Your task to perform on an android device: Go to eBay Image 0: 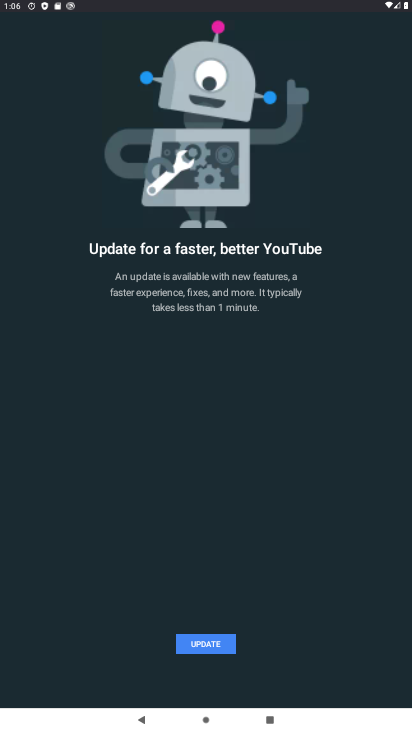
Step 0: press back button
Your task to perform on an android device: Go to eBay Image 1: 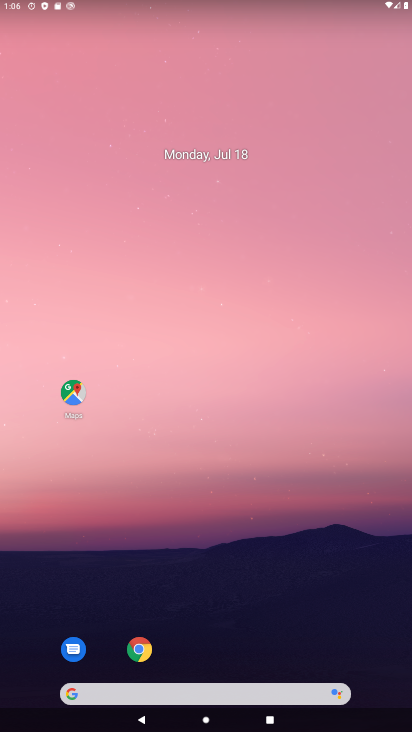
Step 1: drag from (146, 637) to (217, 637)
Your task to perform on an android device: Go to eBay Image 2: 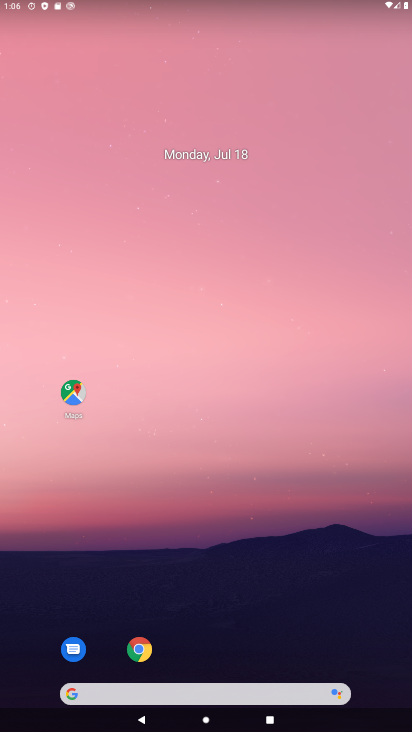
Step 2: click (125, 643)
Your task to perform on an android device: Go to eBay Image 3: 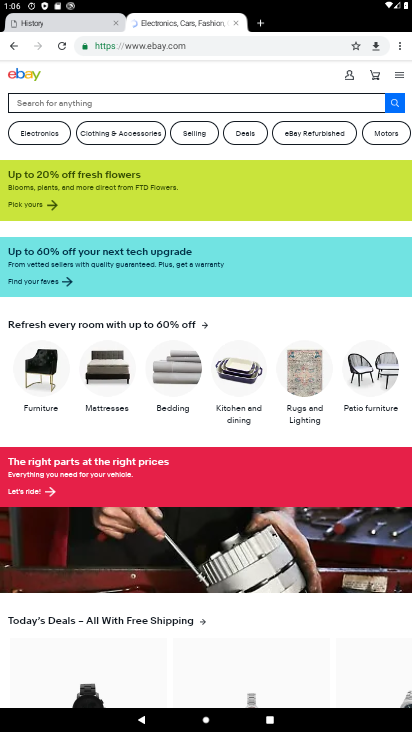
Step 3: task complete